Your task to perform on an android device: change notification settings in the gmail app Image 0: 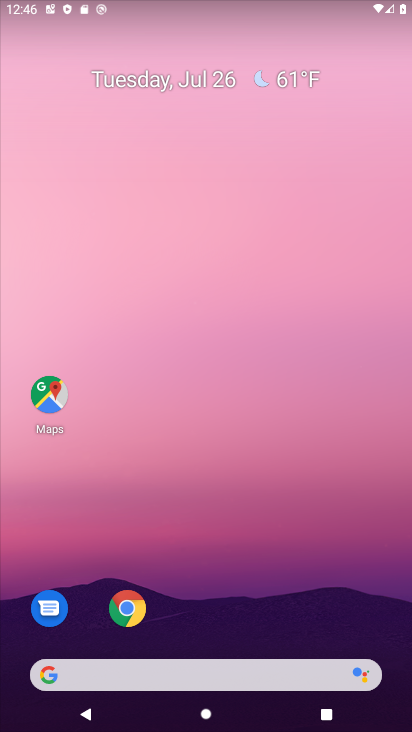
Step 0: press home button
Your task to perform on an android device: change notification settings in the gmail app Image 1: 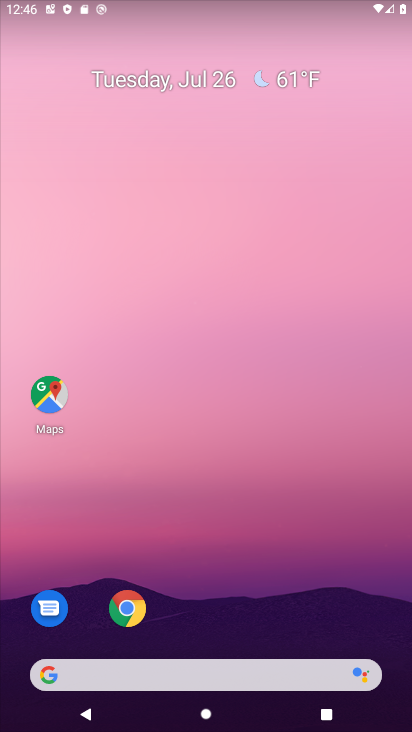
Step 1: drag from (352, 626) to (376, 146)
Your task to perform on an android device: change notification settings in the gmail app Image 2: 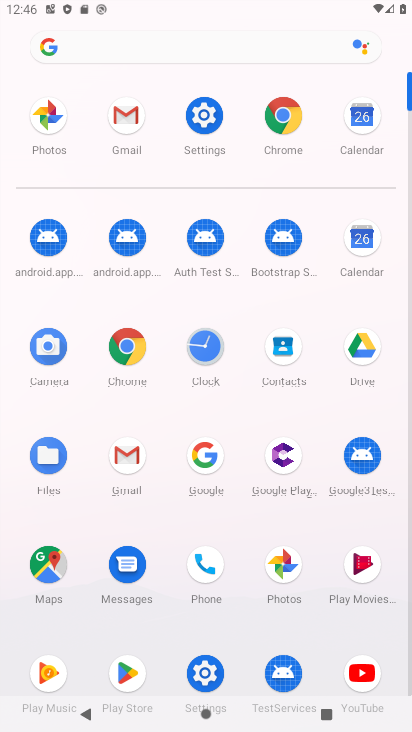
Step 2: click (133, 458)
Your task to perform on an android device: change notification settings in the gmail app Image 3: 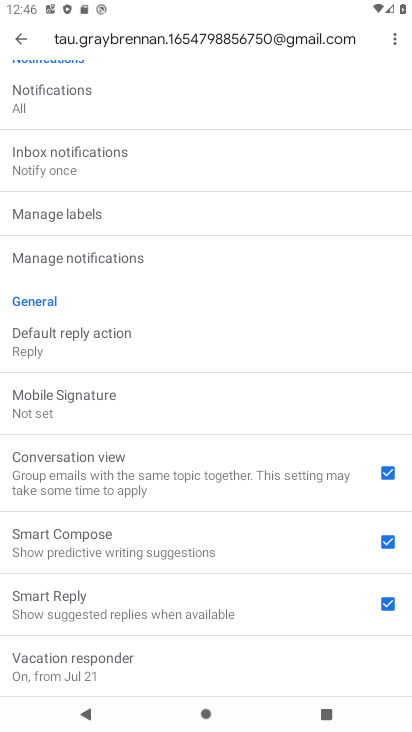
Step 3: press back button
Your task to perform on an android device: change notification settings in the gmail app Image 4: 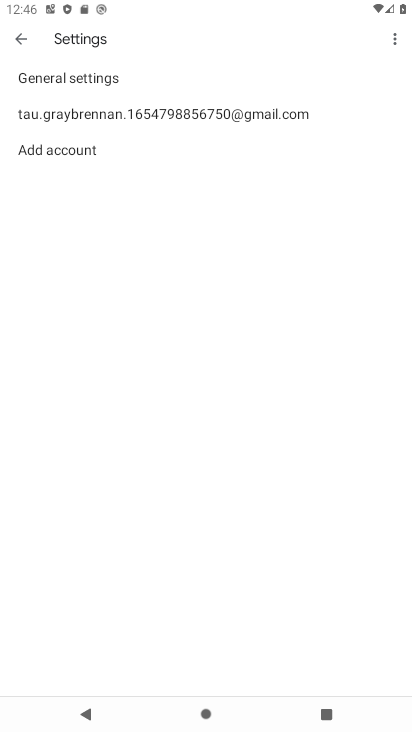
Step 4: click (213, 117)
Your task to perform on an android device: change notification settings in the gmail app Image 5: 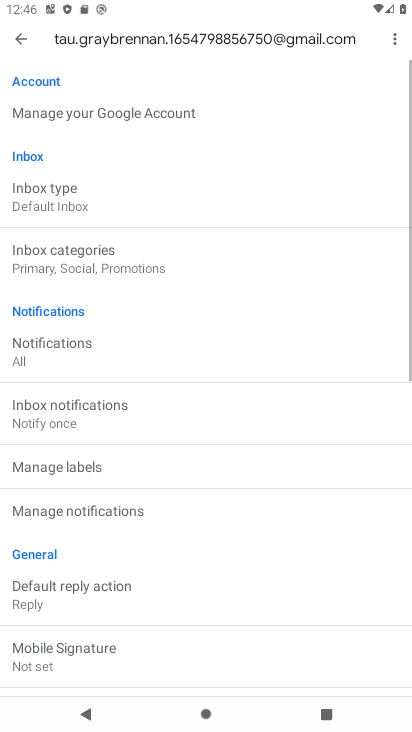
Step 5: drag from (289, 429) to (293, 356)
Your task to perform on an android device: change notification settings in the gmail app Image 6: 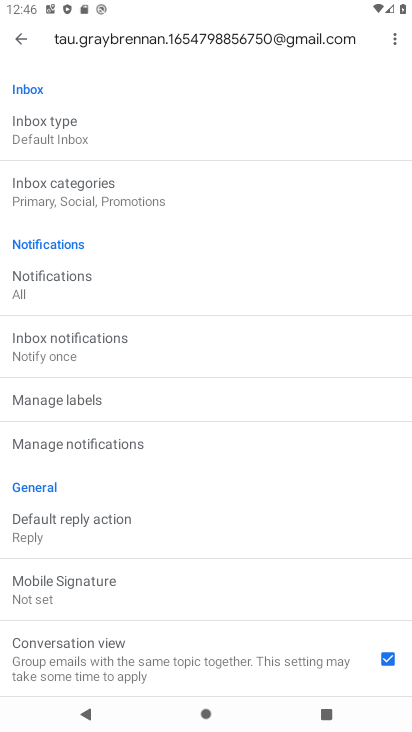
Step 6: drag from (281, 494) to (280, 395)
Your task to perform on an android device: change notification settings in the gmail app Image 7: 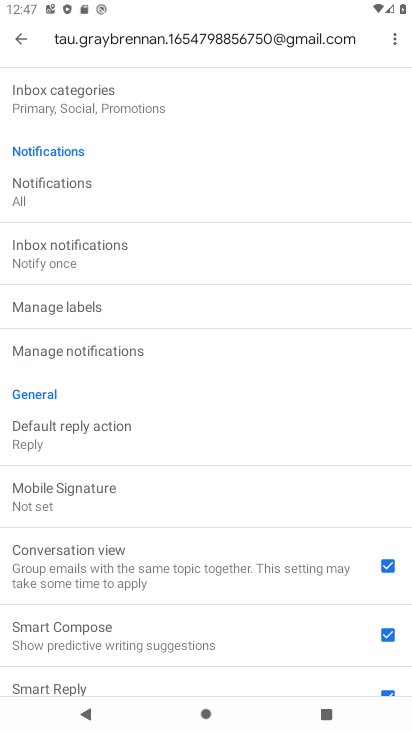
Step 7: click (135, 209)
Your task to perform on an android device: change notification settings in the gmail app Image 8: 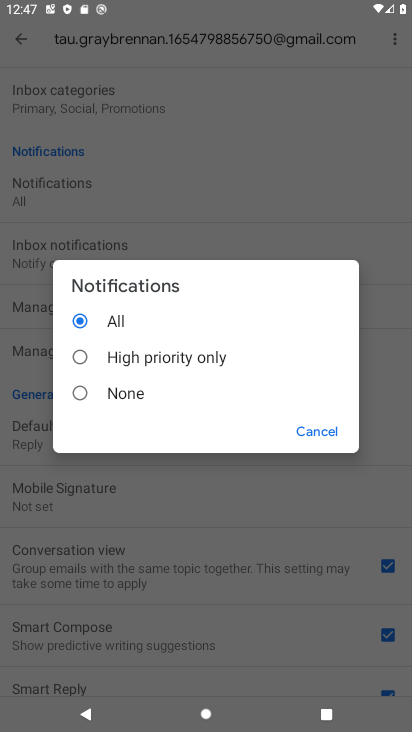
Step 8: click (159, 350)
Your task to perform on an android device: change notification settings in the gmail app Image 9: 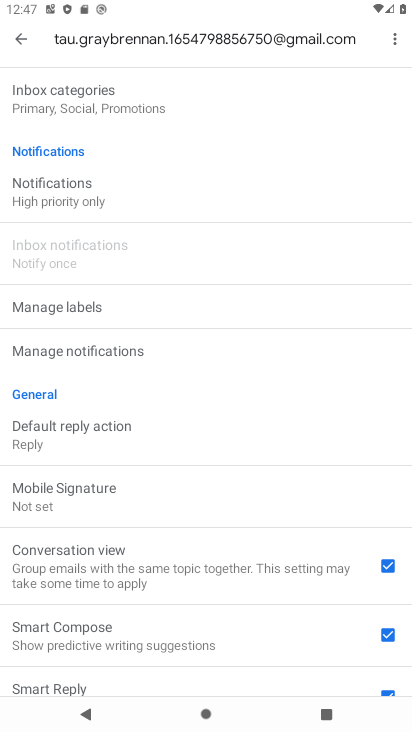
Step 9: task complete